Your task to perform on an android device: Open CNN.com Image 0: 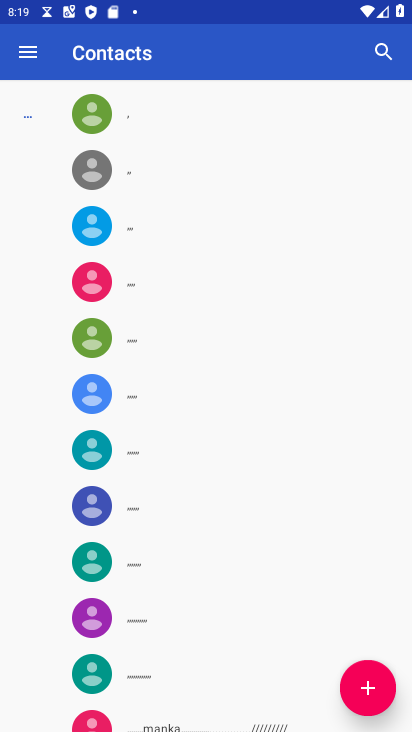
Step 0: press home button
Your task to perform on an android device: Open CNN.com Image 1: 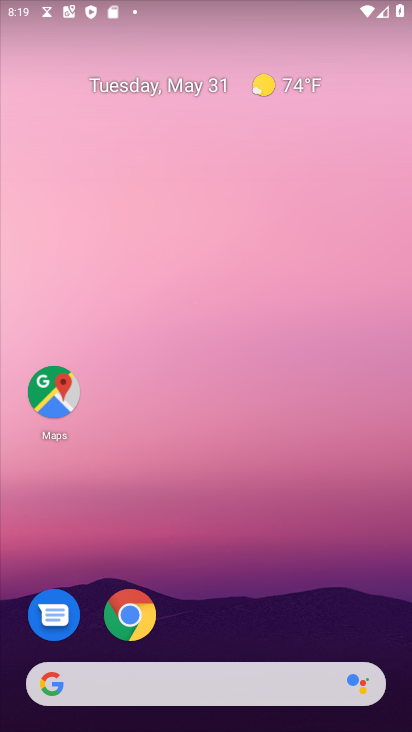
Step 1: click (134, 609)
Your task to perform on an android device: Open CNN.com Image 2: 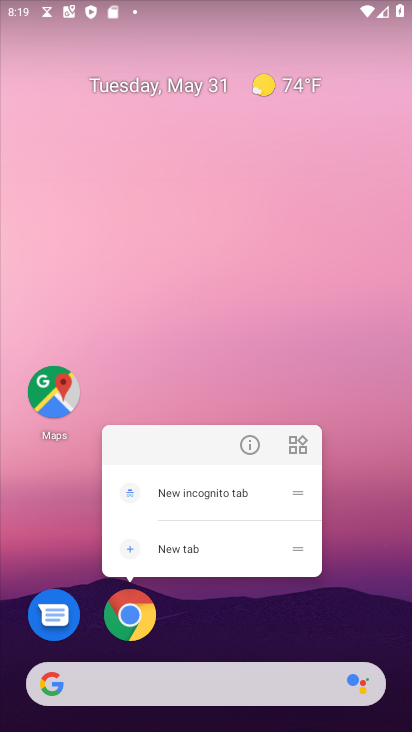
Step 2: click (126, 618)
Your task to perform on an android device: Open CNN.com Image 3: 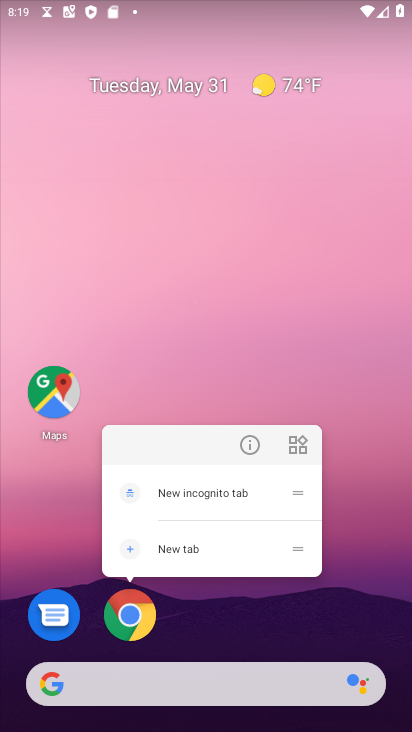
Step 3: click (124, 627)
Your task to perform on an android device: Open CNN.com Image 4: 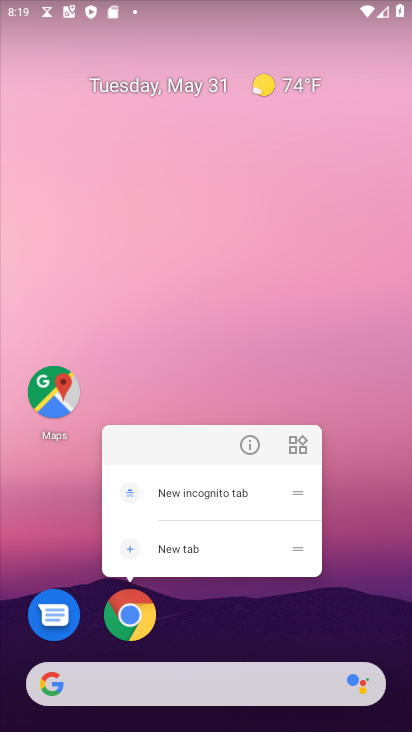
Step 4: click (124, 627)
Your task to perform on an android device: Open CNN.com Image 5: 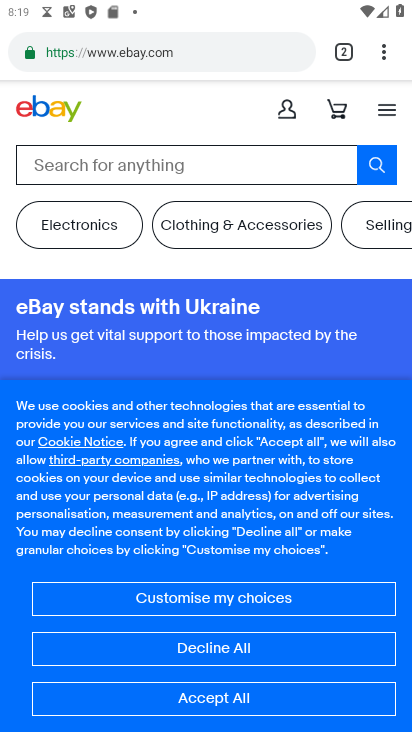
Step 5: drag from (380, 50) to (247, 103)
Your task to perform on an android device: Open CNN.com Image 6: 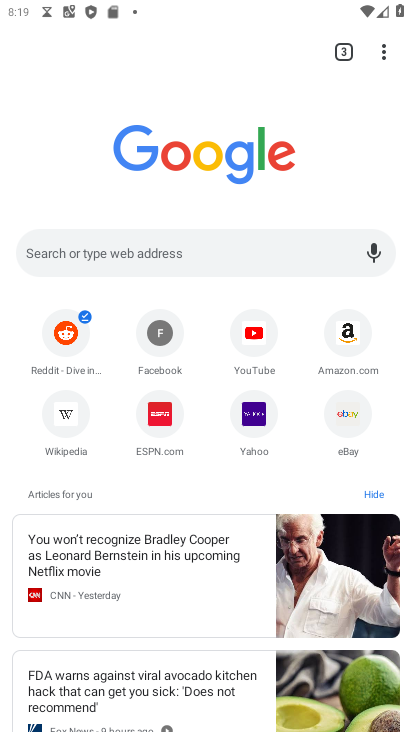
Step 6: click (138, 248)
Your task to perform on an android device: Open CNN.com Image 7: 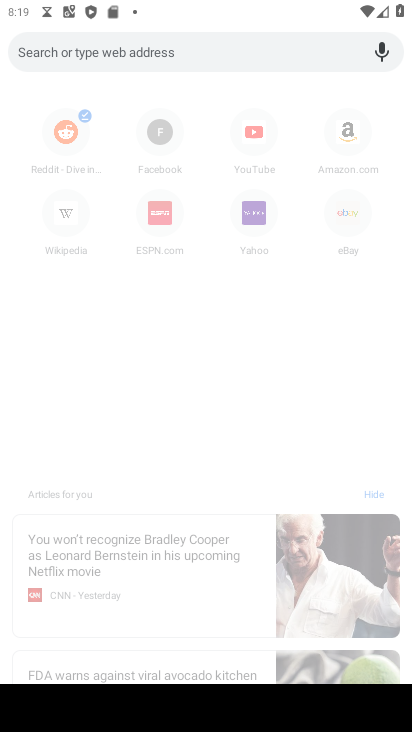
Step 7: type "cnn.com"
Your task to perform on an android device: Open CNN.com Image 8: 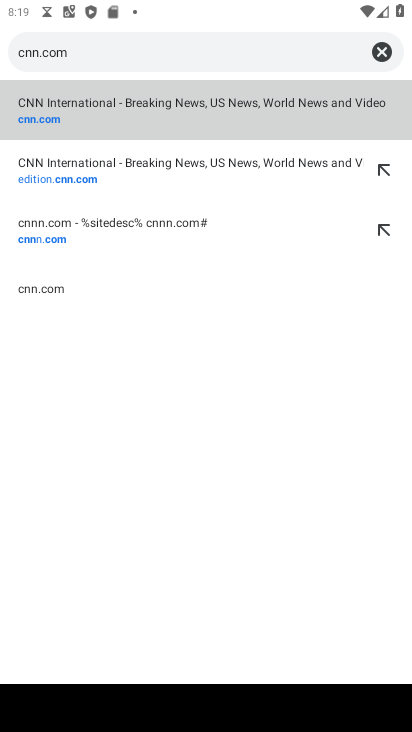
Step 8: click (110, 104)
Your task to perform on an android device: Open CNN.com Image 9: 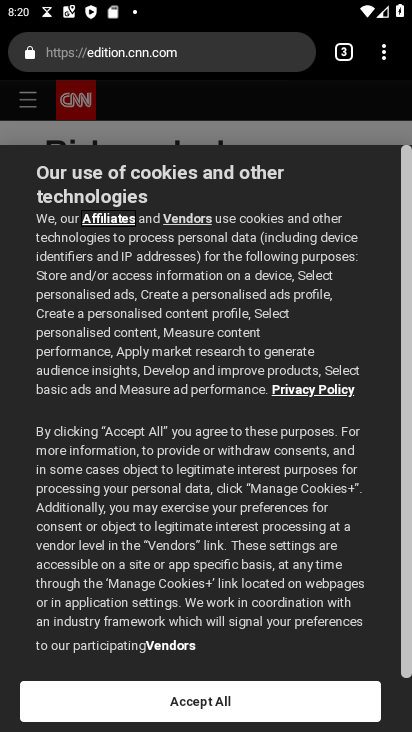
Step 9: drag from (161, 514) to (291, 166)
Your task to perform on an android device: Open CNN.com Image 10: 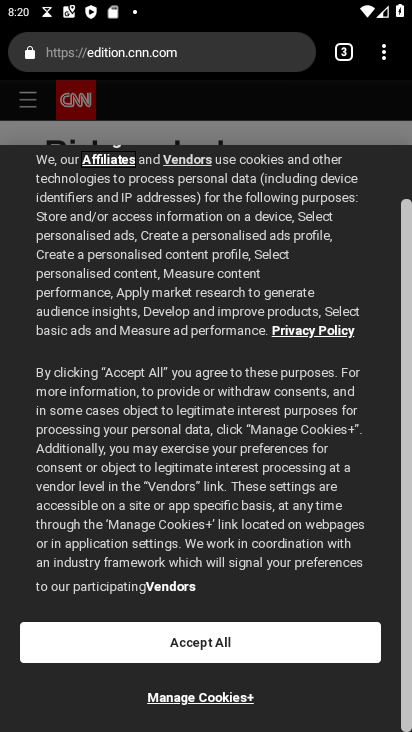
Step 10: click (192, 639)
Your task to perform on an android device: Open CNN.com Image 11: 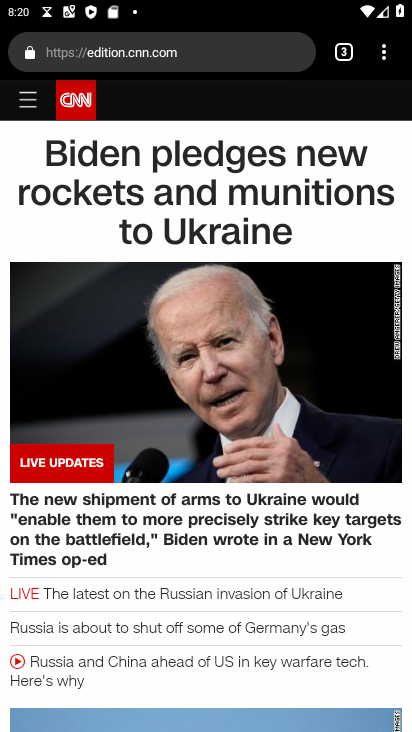
Step 11: task complete